Your task to perform on an android device: Go to Google maps Image 0: 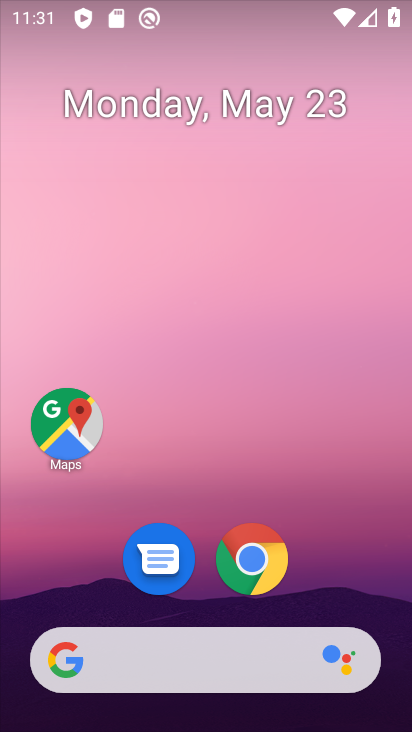
Step 0: click (49, 404)
Your task to perform on an android device: Go to Google maps Image 1: 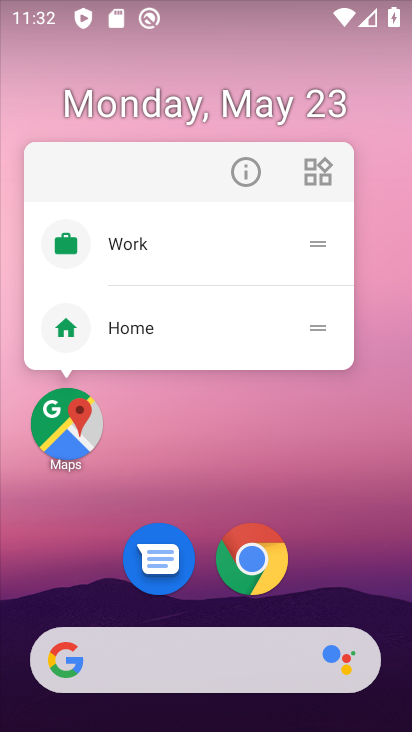
Step 1: click (72, 416)
Your task to perform on an android device: Go to Google maps Image 2: 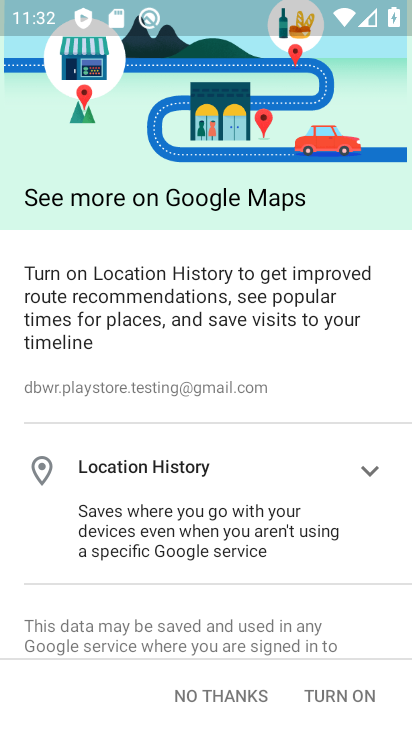
Step 2: click (349, 686)
Your task to perform on an android device: Go to Google maps Image 3: 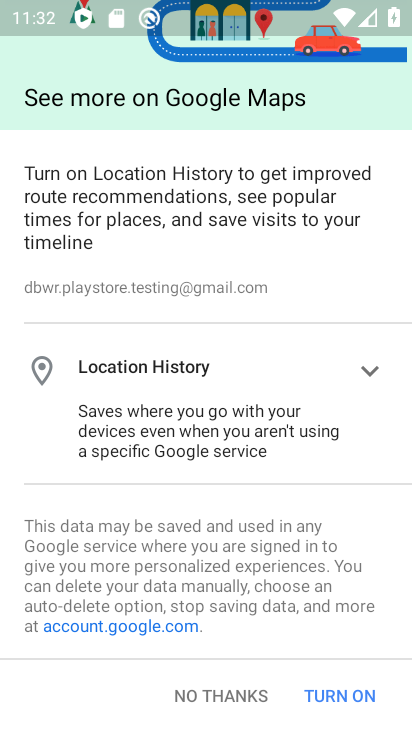
Step 3: click (353, 695)
Your task to perform on an android device: Go to Google maps Image 4: 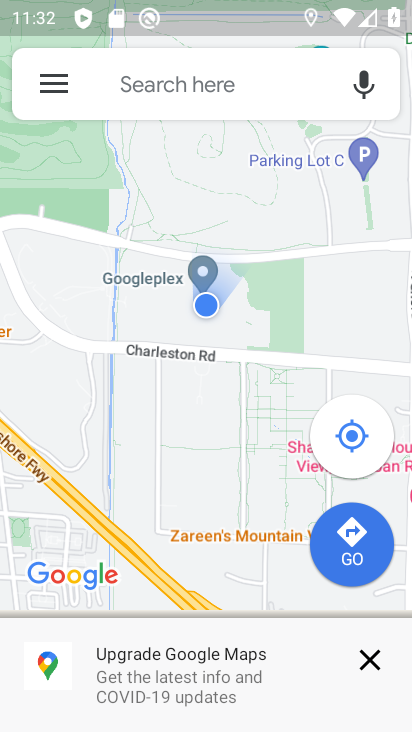
Step 4: task complete